Your task to perform on an android device: check android version Image 0: 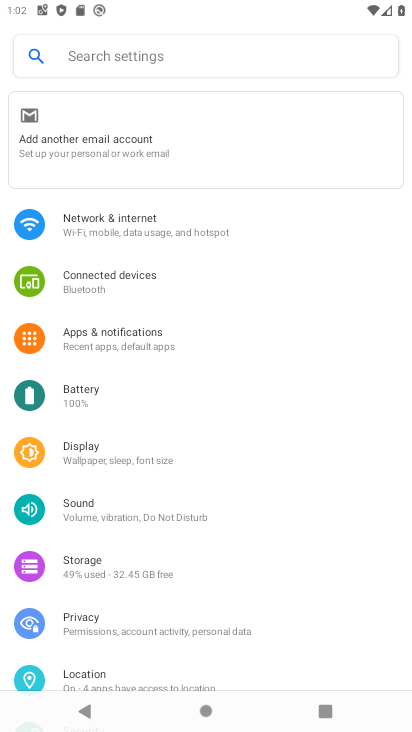
Step 0: drag from (223, 580) to (281, 163)
Your task to perform on an android device: check android version Image 1: 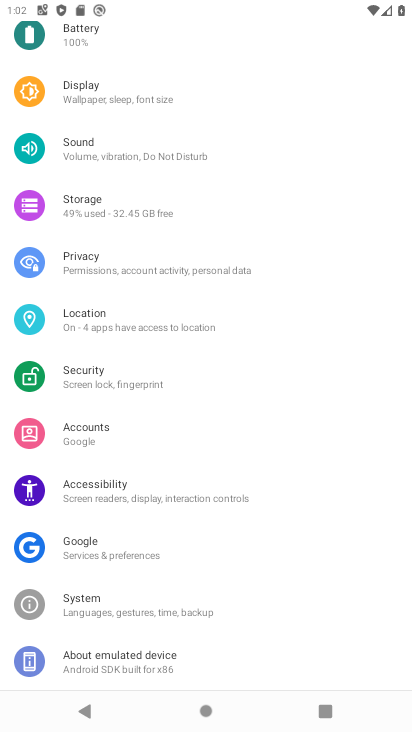
Step 1: task complete